Your task to perform on an android device: Show me productivity apps on the Play Store Image 0: 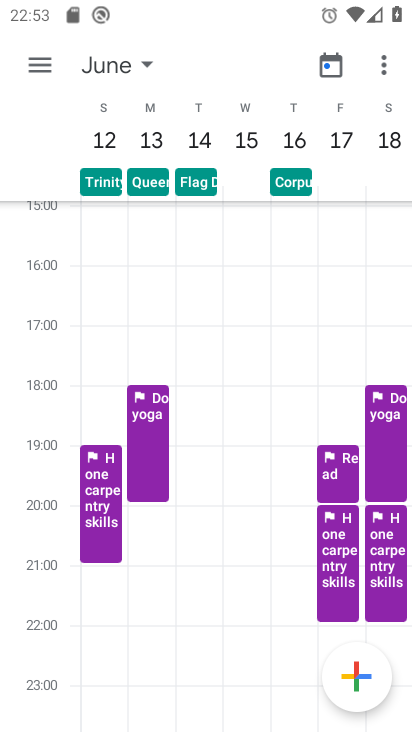
Step 0: press home button
Your task to perform on an android device: Show me productivity apps on the Play Store Image 1: 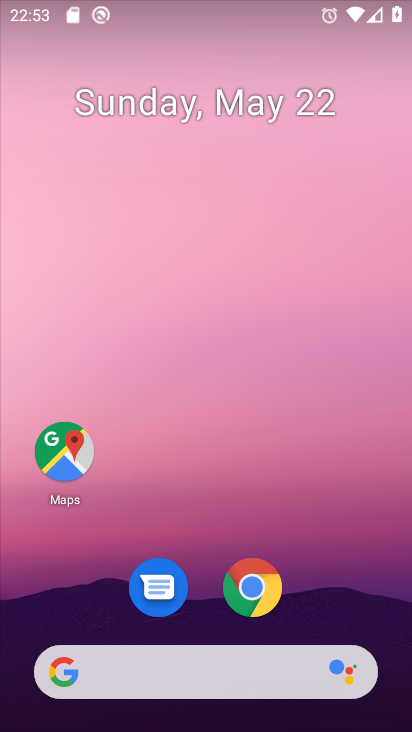
Step 1: drag from (186, 508) to (194, 40)
Your task to perform on an android device: Show me productivity apps on the Play Store Image 2: 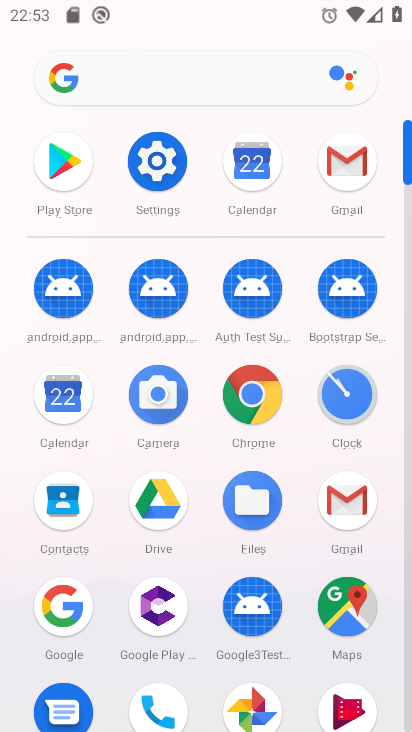
Step 2: drag from (203, 604) to (239, 412)
Your task to perform on an android device: Show me productivity apps on the Play Store Image 3: 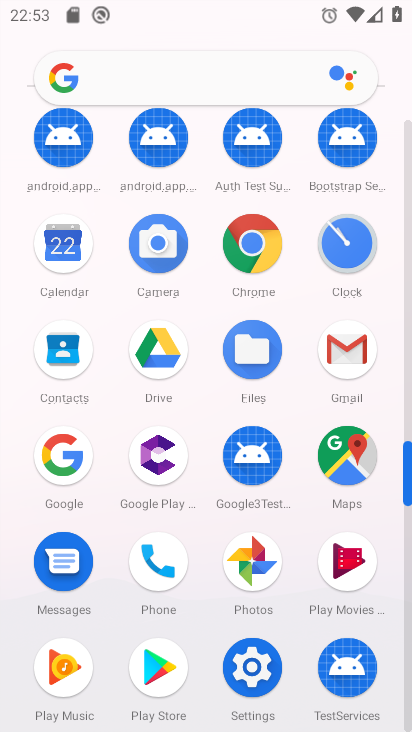
Step 3: click (160, 650)
Your task to perform on an android device: Show me productivity apps on the Play Store Image 4: 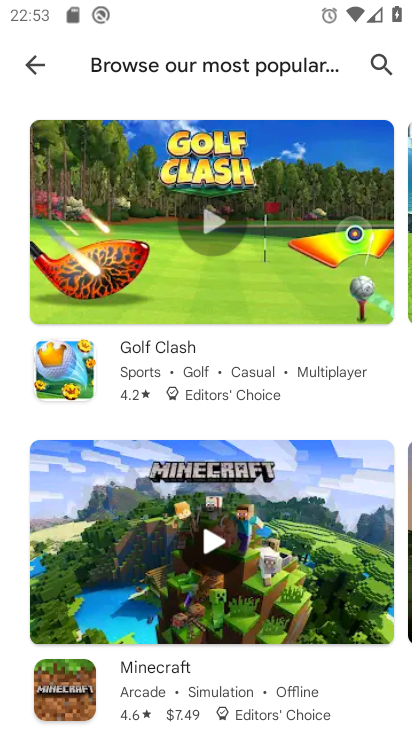
Step 4: click (33, 67)
Your task to perform on an android device: Show me productivity apps on the Play Store Image 5: 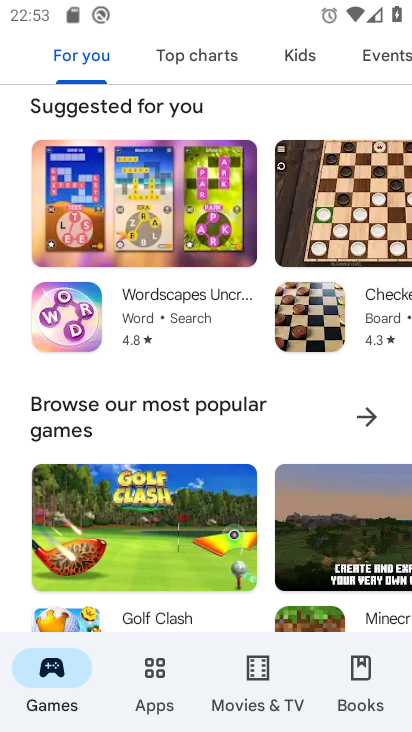
Step 5: click (137, 661)
Your task to perform on an android device: Show me productivity apps on the Play Store Image 6: 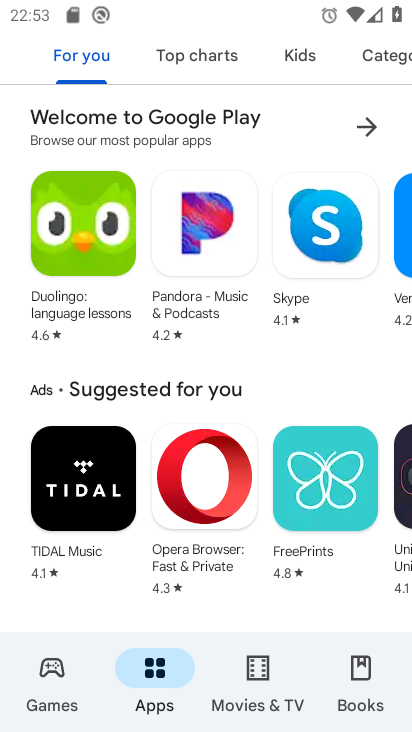
Step 6: click (383, 47)
Your task to perform on an android device: Show me productivity apps on the Play Store Image 7: 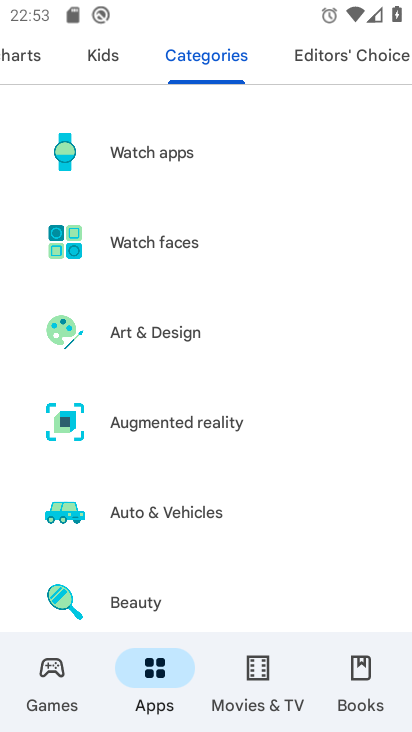
Step 7: drag from (289, 542) to (242, 100)
Your task to perform on an android device: Show me productivity apps on the Play Store Image 8: 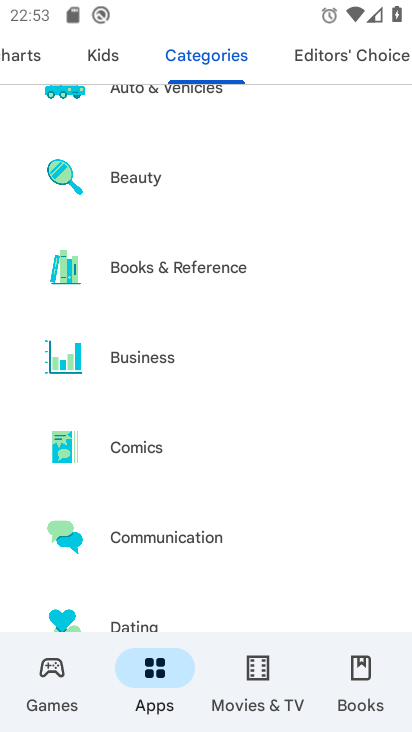
Step 8: drag from (265, 457) to (268, 163)
Your task to perform on an android device: Show me productivity apps on the Play Store Image 9: 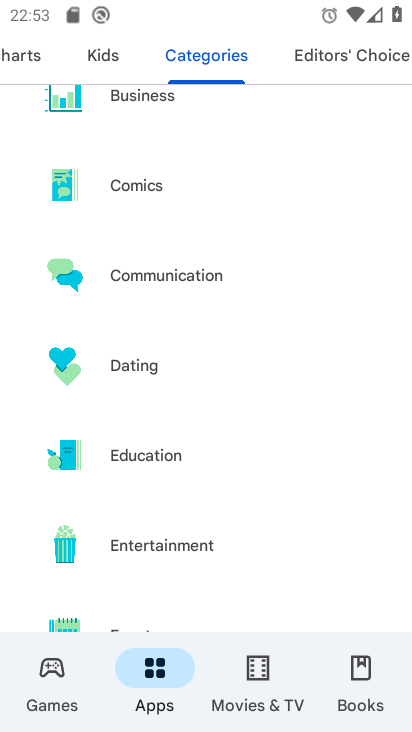
Step 9: drag from (270, 484) to (267, 136)
Your task to perform on an android device: Show me productivity apps on the Play Store Image 10: 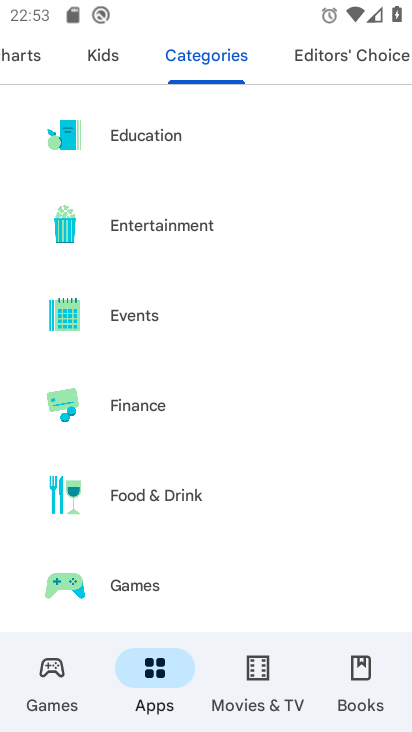
Step 10: drag from (262, 523) to (264, 115)
Your task to perform on an android device: Show me productivity apps on the Play Store Image 11: 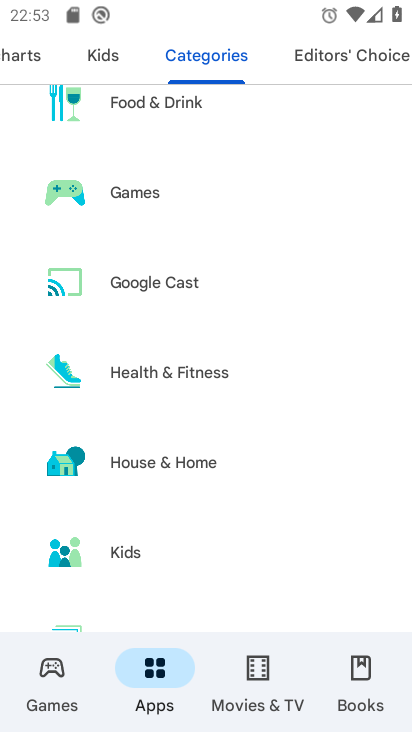
Step 11: drag from (274, 563) to (270, 108)
Your task to perform on an android device: Show me productivity apps on the Play Store Image 12: 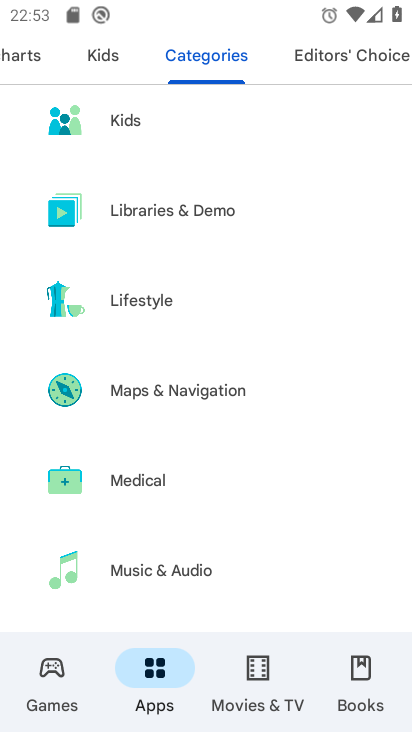
Step 12: drag from (289, 522) to (300, 91)
Your task to perform on an android device: Show me productivity apps on the Play Store Image 13: 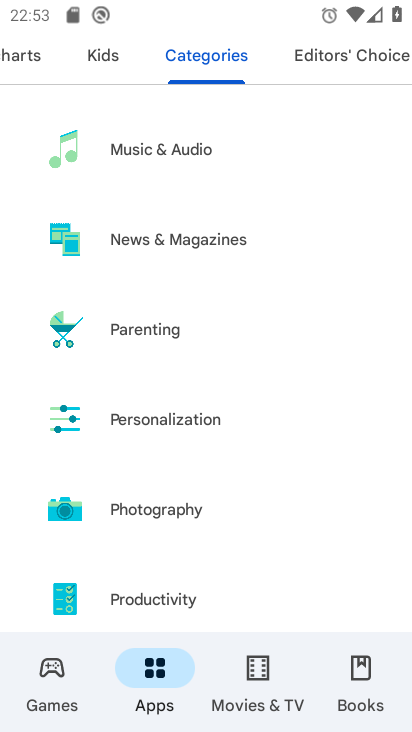
Step 13: drag from (254, 505) to (264, 231)
Your task to perform on an android device: Show me productivity apps on the Play Store Image 14: 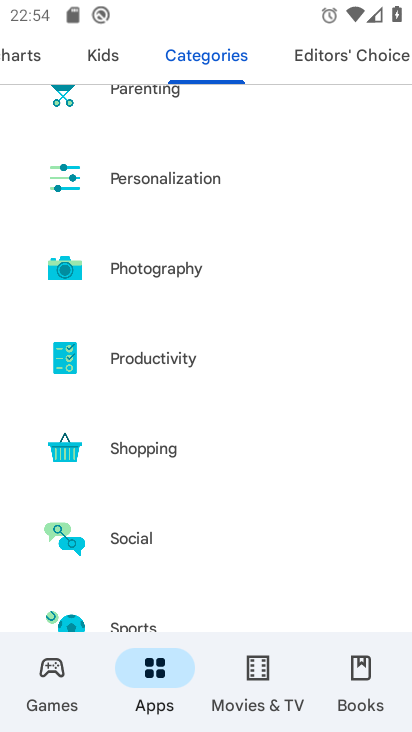
Step 14: click (228, 370)
Your task to perform on an android device: Show me productivity apps on the Play Store Image 15: 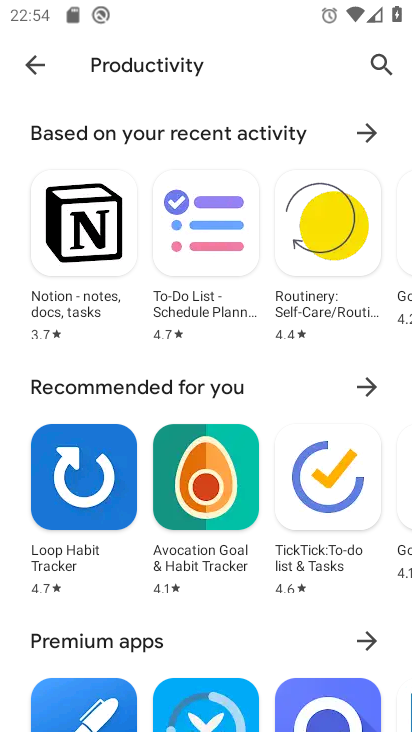
Step 15: task complete